Your task to perform on an android device: open chrome privacy settings Image 0: 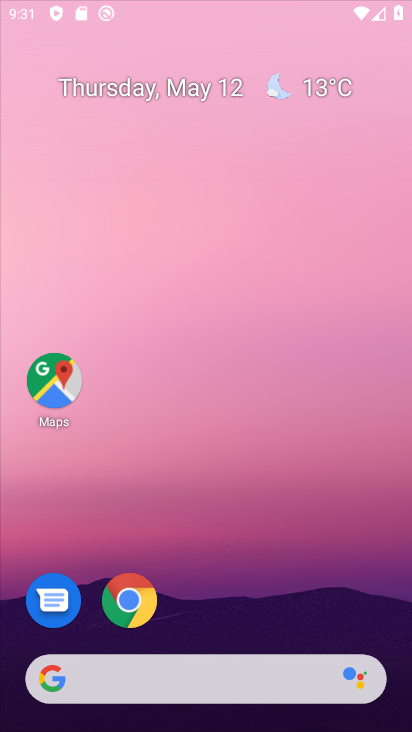
Step 0: click (147, 596)
Your task to perform on an android device: open chrome privacy settings Image 1: 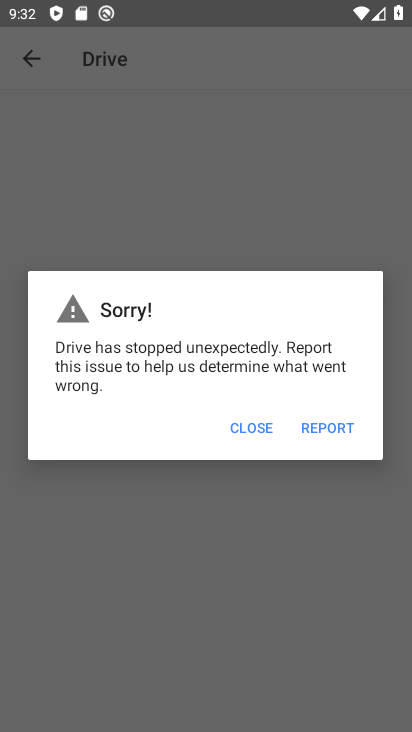
Step 1: press back button
Your task to perform on an android device: open chrome privacy settings Image 2: 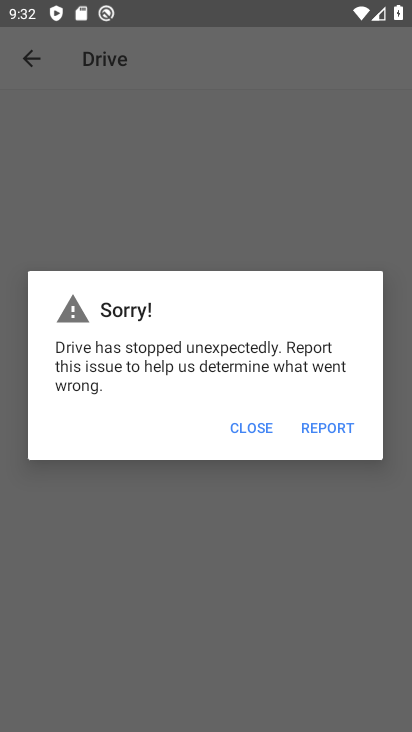
Step 2: press home button
Your task to perform on an android device: open chrome privacy settings Image 3: 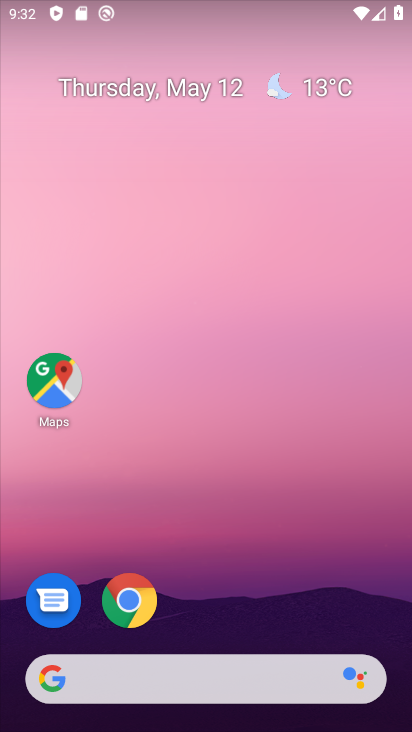
Step 3: drag from (207, 602) to (308, 46)
Your task to perform on an android device: open chrome privacy settings Image 4: 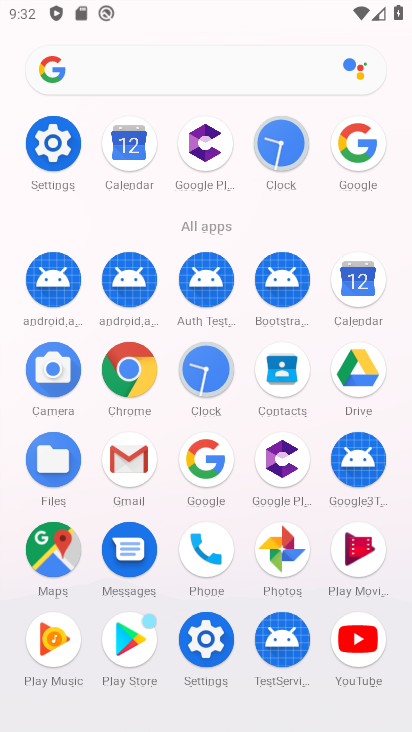
Step 4: click (139, 370)
Your task to perform on an android device: open chrome privacy settings Image 5: 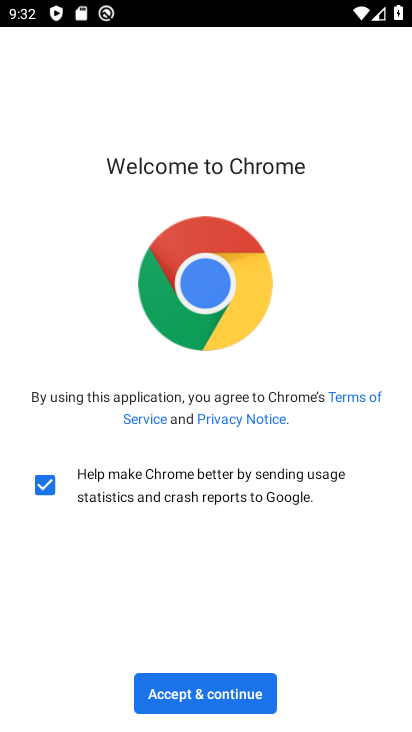
Step 5: click (192, 692)
Your task to perform on an android device: open chrome privacy settings Image 6: 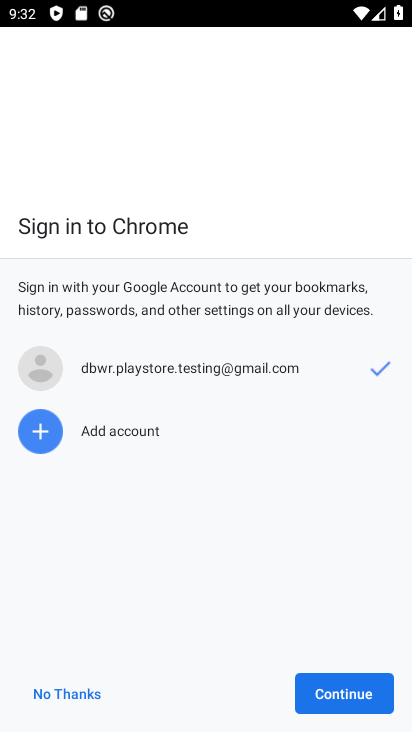
Step 6: click (351, 707)
Your task to perform on an android device: open chrome privacy settings Image 7: 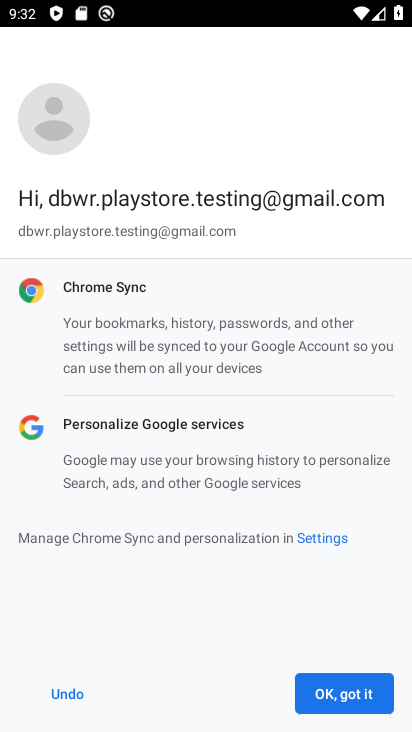
Step 7: click (347, 705)
Your task to perform on an android device: open chrome privacy settings Image 8: 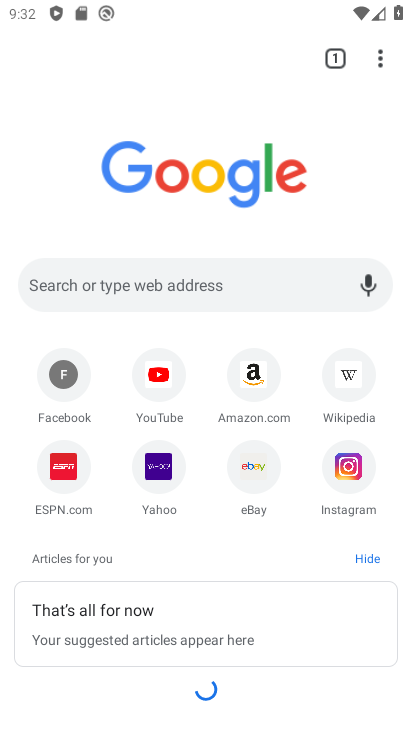
Step 8: drag from (377, 56) to (171, 486)
Your task to perform on an android device: open chrome privacy settings Image 9: 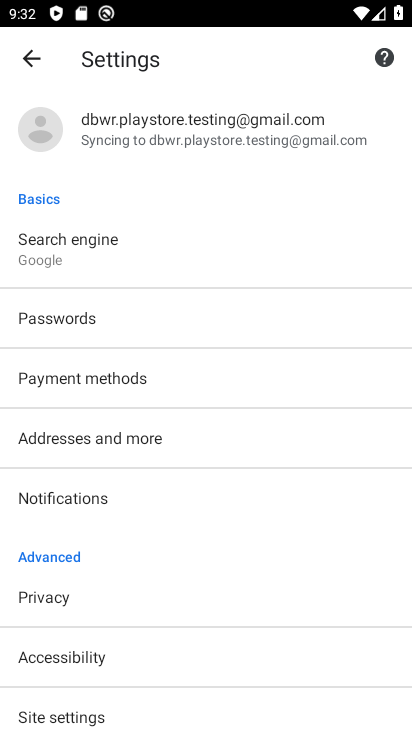
Step 9: click (64, 596)
Your task to perform on an android device: open chrome privacy settings Image 10: 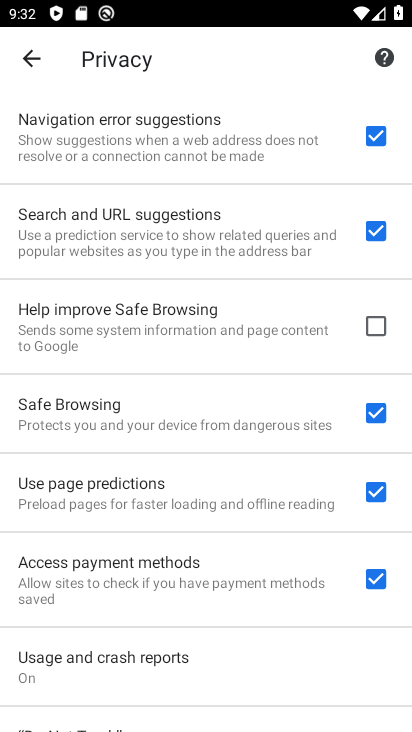
Step 10: task complete